Your task to perform on an android device: Open settings Image 0: 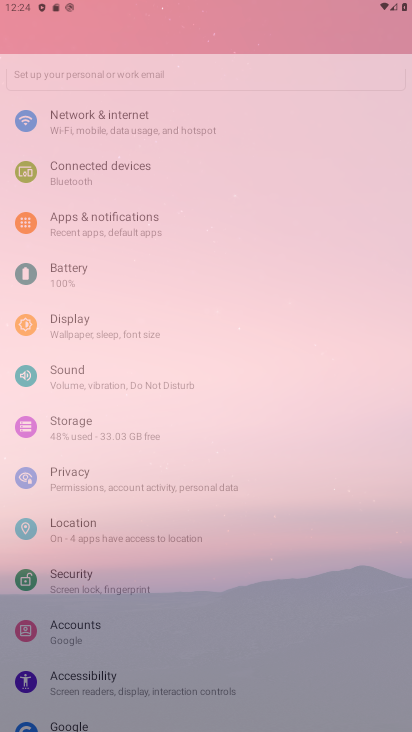
Step 0: press home button
Your task to perform on an android device: Open settings Image 1: 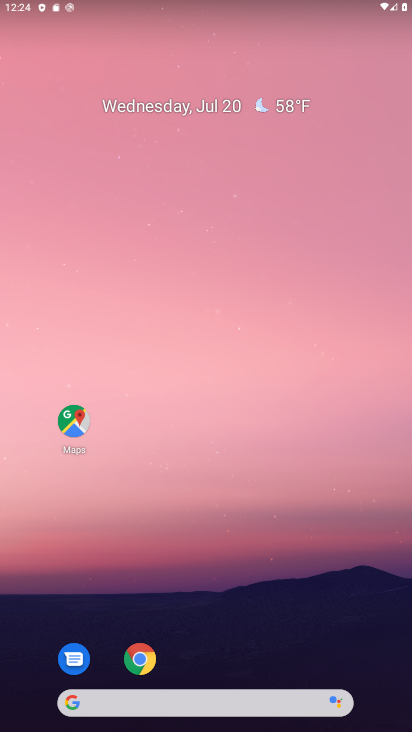
Step 1: drag from (208, 668) to (231, 39)
Your task to perform on an android device: Open settings Image 2: 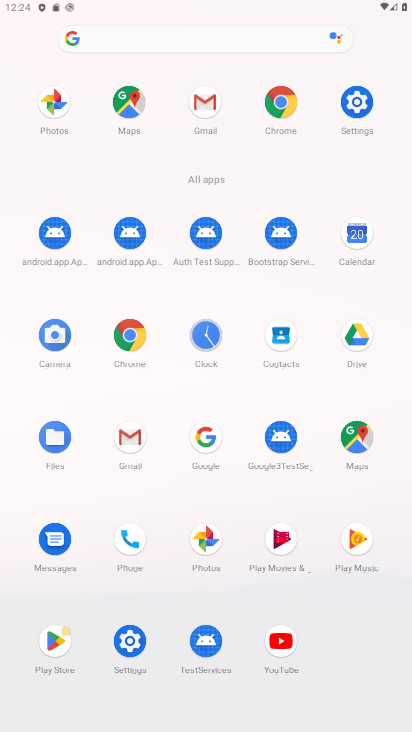
Step 2: click (132, 636)
Your task to perform on an android device: Open settings Image 3: 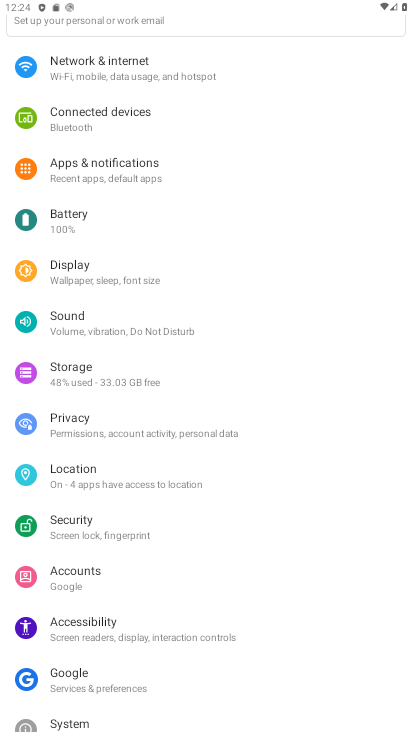
Step 3: task complete